Your task to perform on an android device: Search for pizza restaurants on Maps Image 0: 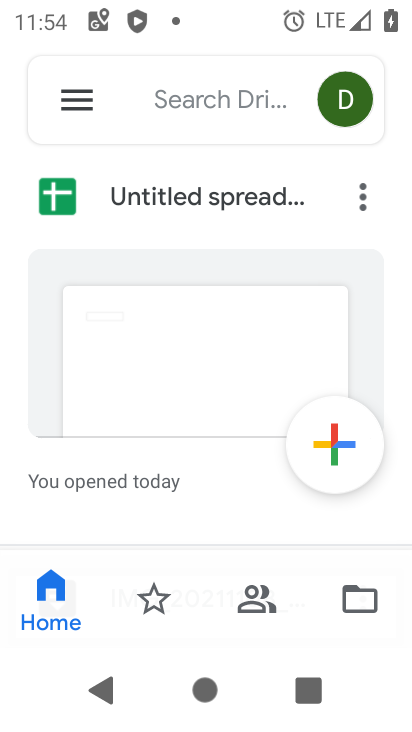
Step 0: press home button
Your task to perform on an android device: Search for pizza restaurants on Maps Image 1: 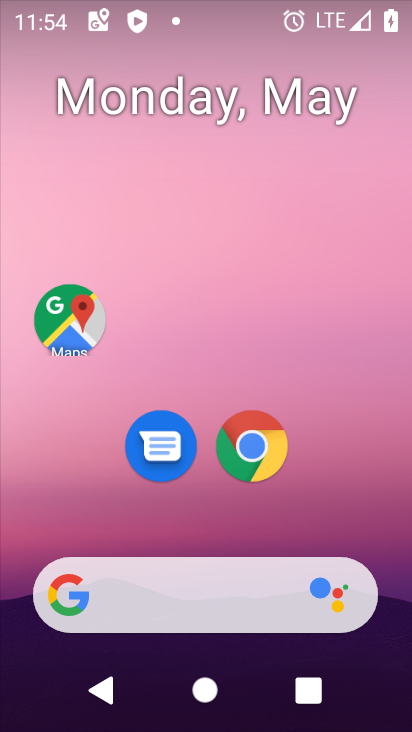
Step 1: click (66, 319)
Your task to perform on an android device: Search for pizza restaurants on Maps Image 2: 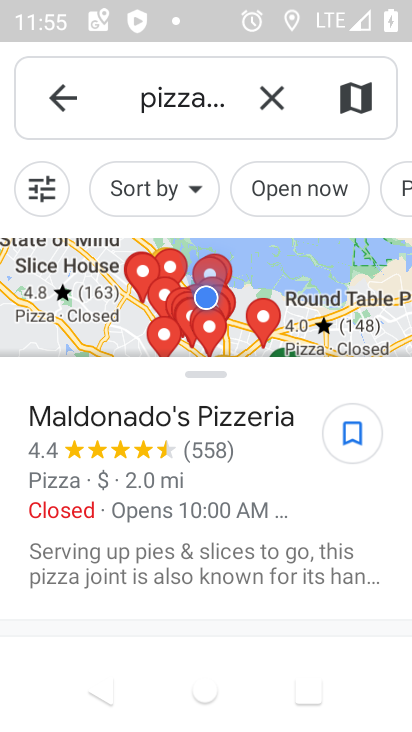
Step 2: task complete